Your task to perform on an android device: Is it going to rain tomorrow? Image 0: 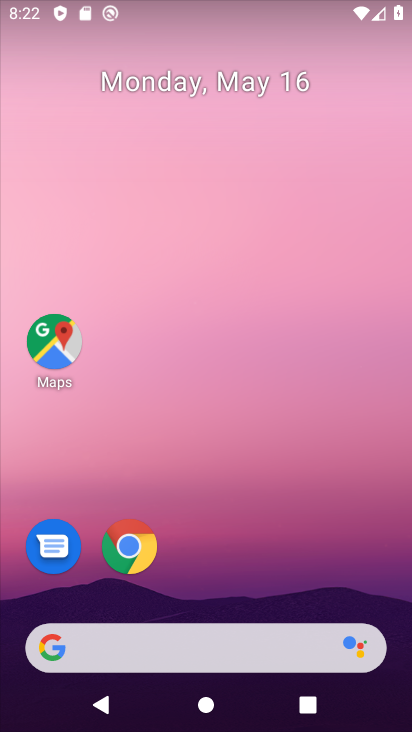
Step 0: drag from (12, 187) to (401, 240)
Your task to perform on an android device: Is it going to rain tomorrow? Image 1: 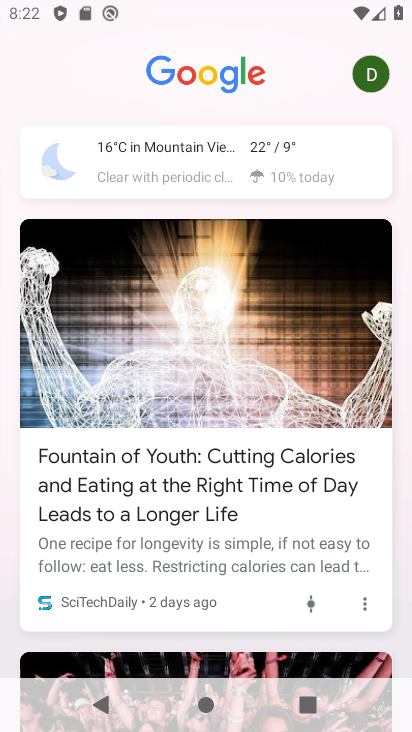
Step 1: click (280, 153)
Your task to perform on an android device: Is it going to rain tomorrow? Image 2: 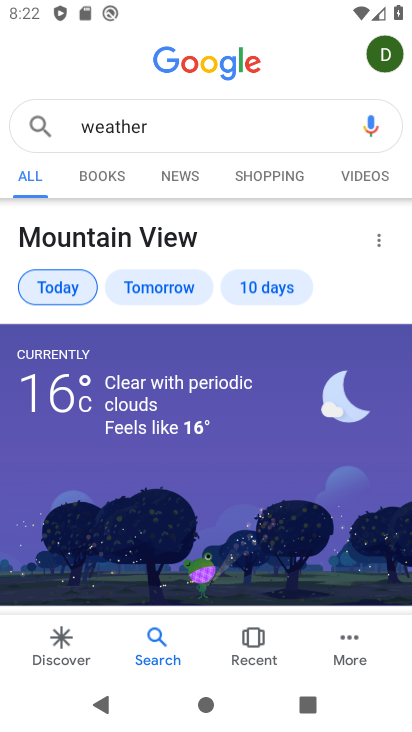
Step 2: click (175, 288)
Your task to perform on an android device: Is it going to rain tomorrow? Image 3: 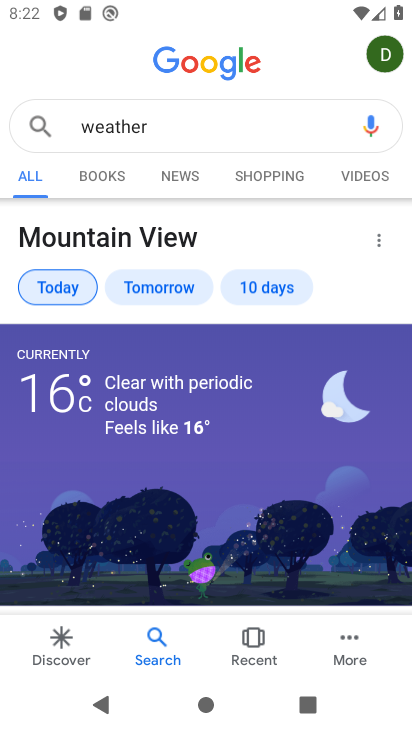
Step 3: click (175, 288)
Your task to perform on an android device: Is it going to rain tomorrow? Image 4: 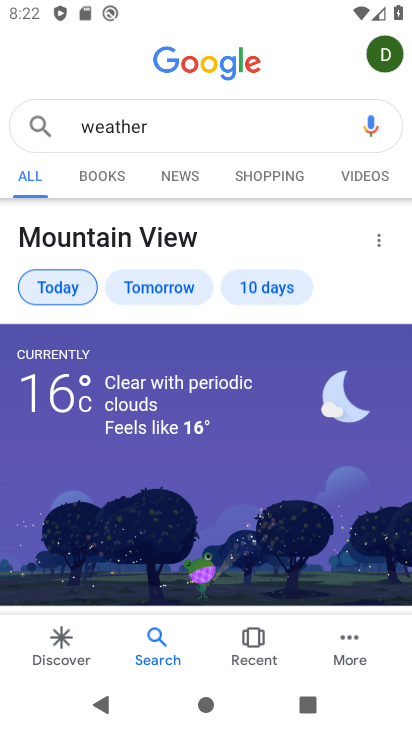
Step 4: click (175, 288)
Your task to perform on an android device: Is it going to rain tomorrow? Image 5: 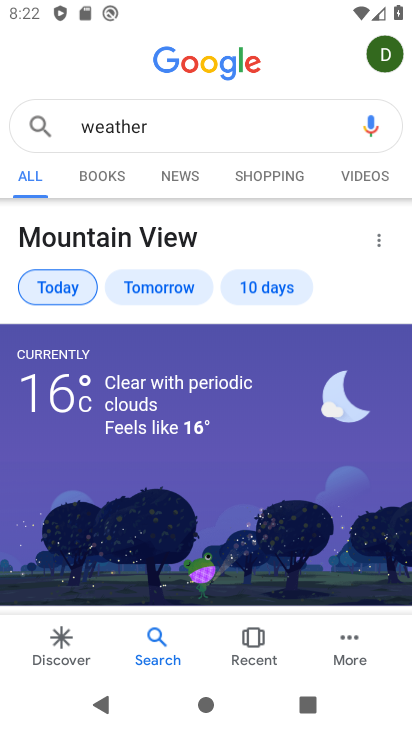
Step 5: click (175, 288)
Your task to perform on an android device: Is it going to rain tomorrow? Image 6: 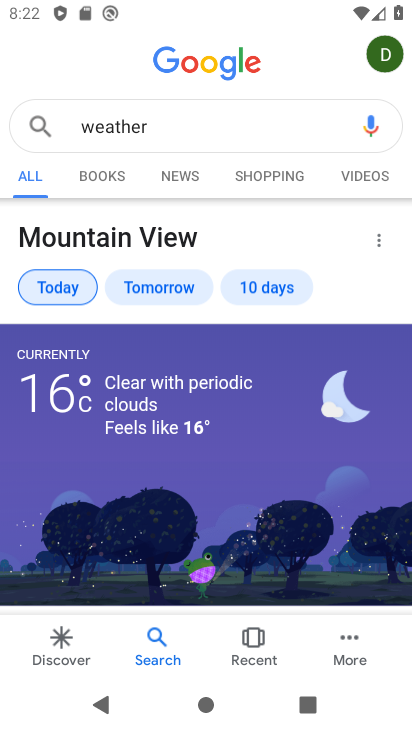
Step 6: click (175, 288)
Your task to perform on an android device: Is it going to rain tomorrow? Image 7: 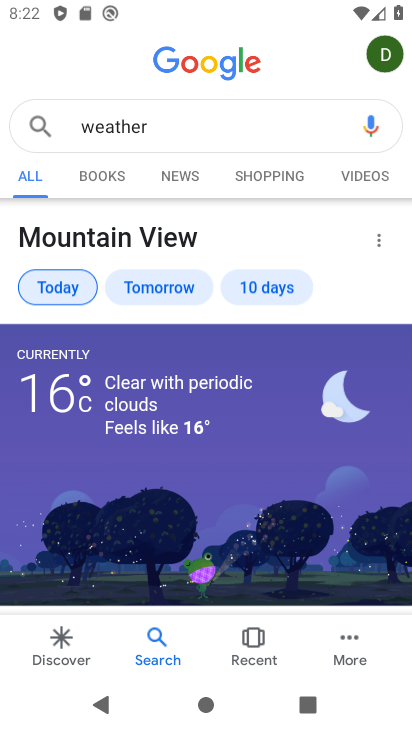
Step 7: click (145, 288)
Your task to perform on an android device: Is it going to rain tomorrow? Image 8: 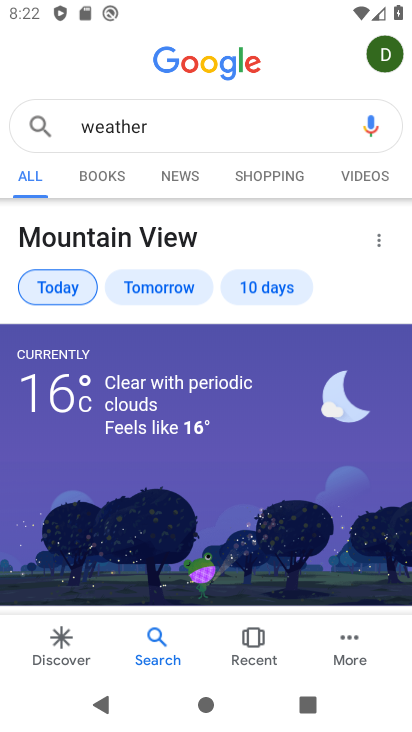
Step 8: click (188, 128)
Your task to perform on an android device: Is it going to rain tomorrow? Image 9: 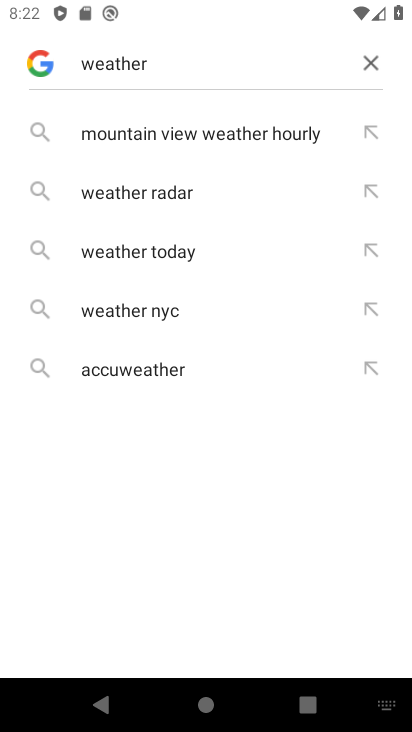
Step 9: type " tomorrow"
Your task to perform on an android device: Is it going to rain tomorrow? Image 10: 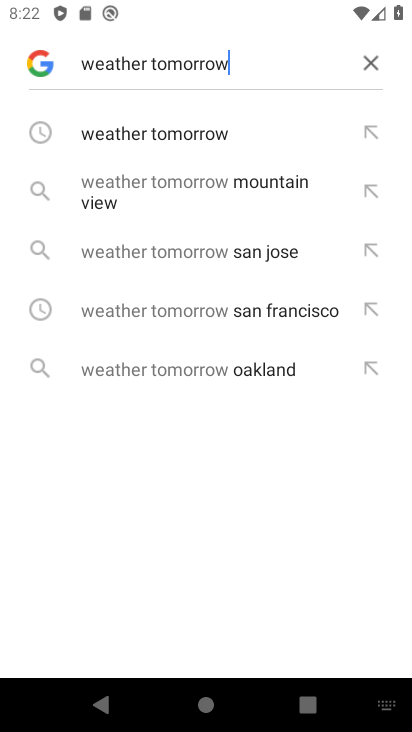
Step 10: click (231, 142)
Your task to perform on an android device: Is it going to rain tomorrow? Image 11: 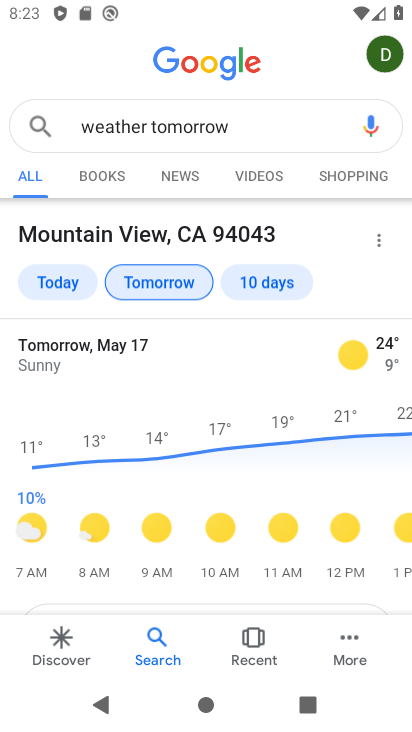
Step 11: task complete